Your task to perform on an android device: change your default location settings in chrome Image 0: 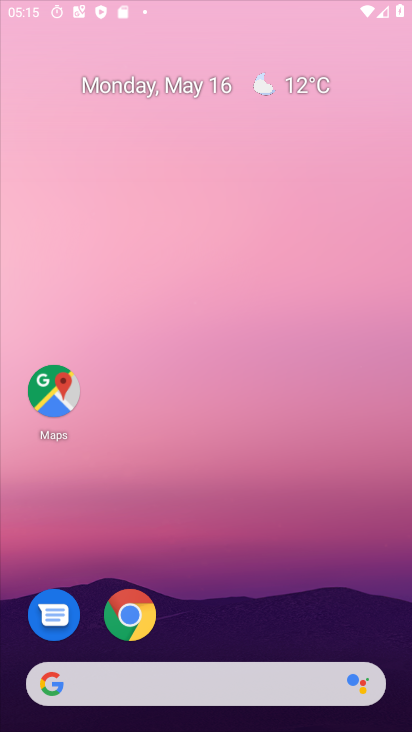
Step 0: drag from (323, 471) to (234, 42)
Your task to perform on an android device: change your default location settings in chrome Image 1: 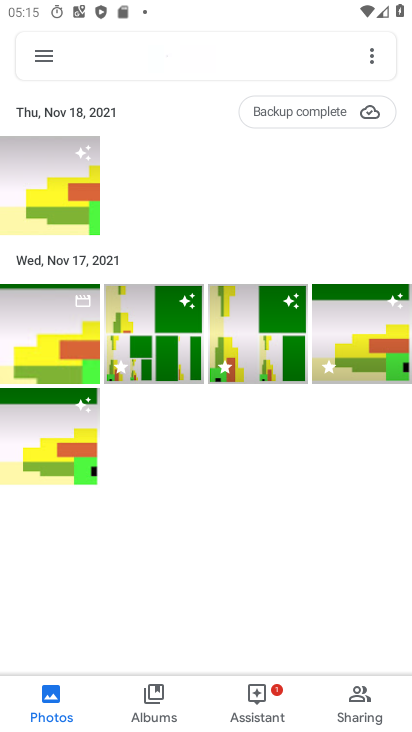
Step 1: press back button
Your task to perform on an android device: change your default location settings in chrome Image 2: 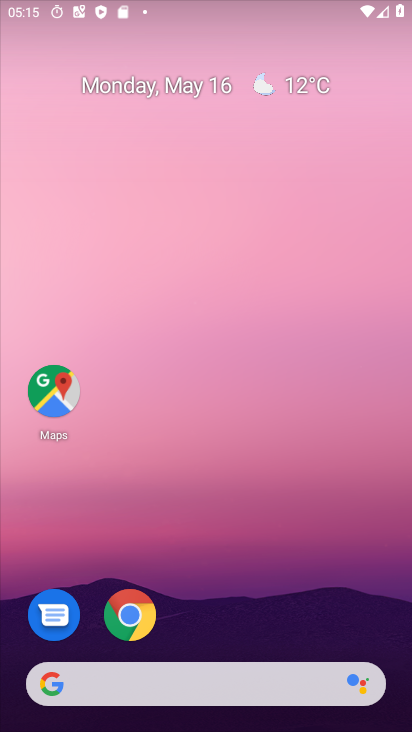
Step 2: drag from (212, 542) to (145, 52)
Your task to perform on an android device: change your default location settings in chrome Image 3: 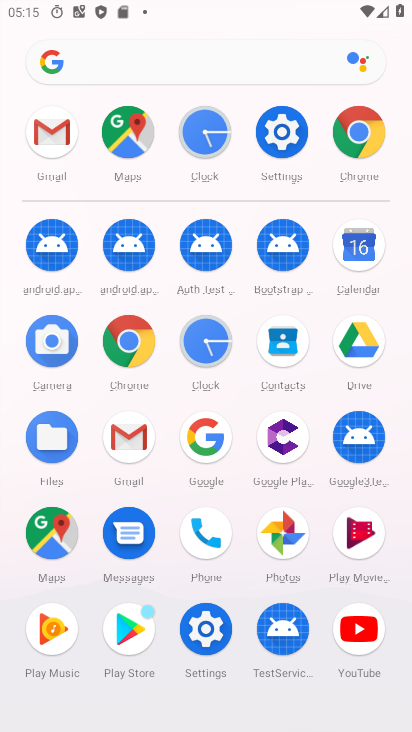
Step 3: drag from (137, 519) to (147, 315)
Your task to perform on an android device: change your default location settings in chrome Image 4: 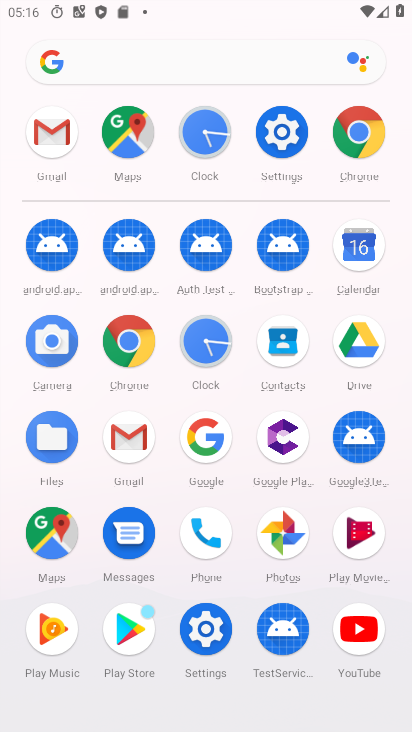
Step 4: click (197, 638)
Your task to perform on an android device: change your default location settings in chrome Image 5: 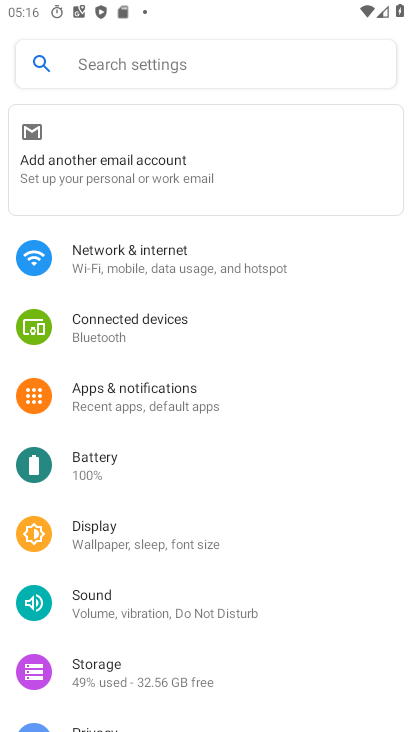
Step 5: drag from (120, 632) to (135, 344)
Your task to perform on an android device: change your default location settings in chrome Image 6: 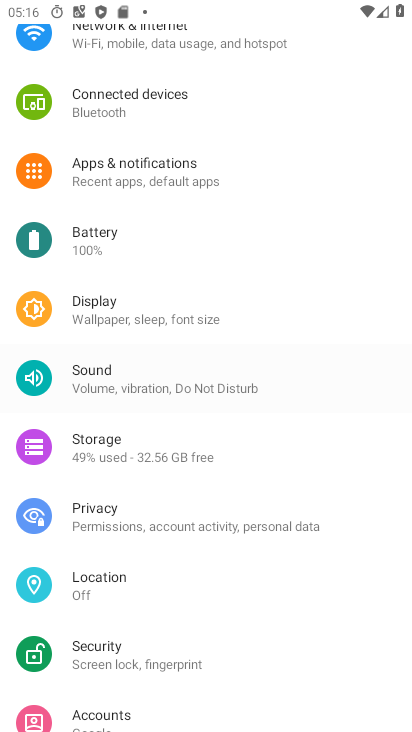
Step 6: drag from (135, 414) to (203, 33)
Your task to perform on an android device: change your default location settings in chrome Image 7: 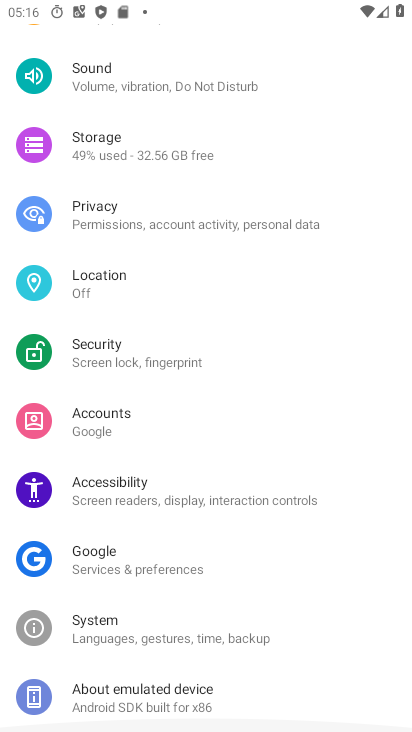
Step 7: drag from (231, 461) to (262, 25)
Your task to perform on an android device: change your default location settings in chrome Image 8: 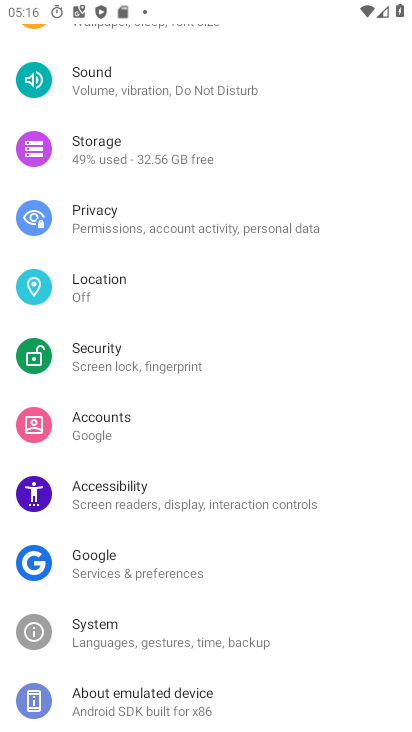
Step 8: click (80, 288)
Your task to perform on an android device: change your default location settings in chrome Image 9: 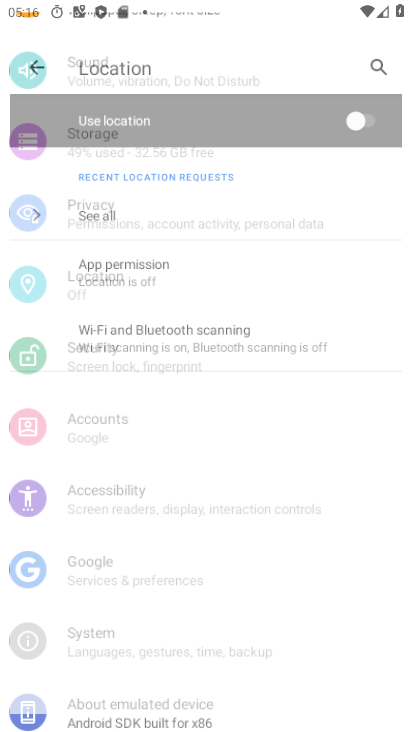
Step 9: click (80, 288)
Your task to perform on an android device: change your default location settings in chrome Image 10: 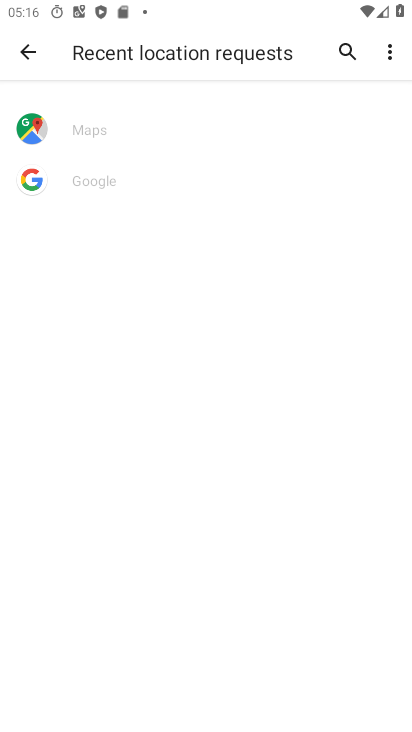
Step 10: click (29, 53)
Your task to perform on an android device: change your default location settings in chrome Image 11: 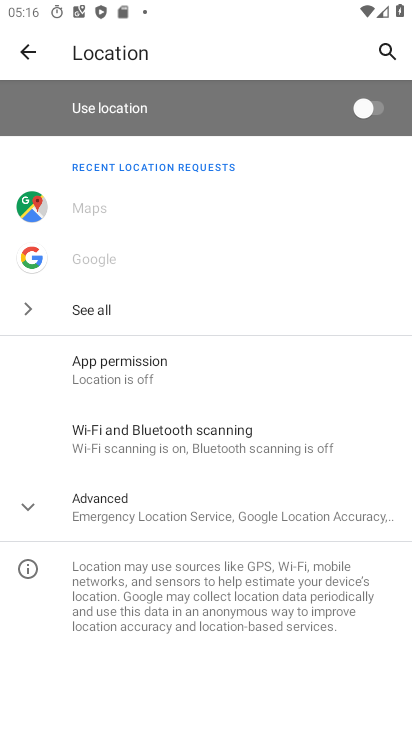
Step 11: click (362, 105)
Your task to perform on an android device: change your default location settings in chrome Image 12: 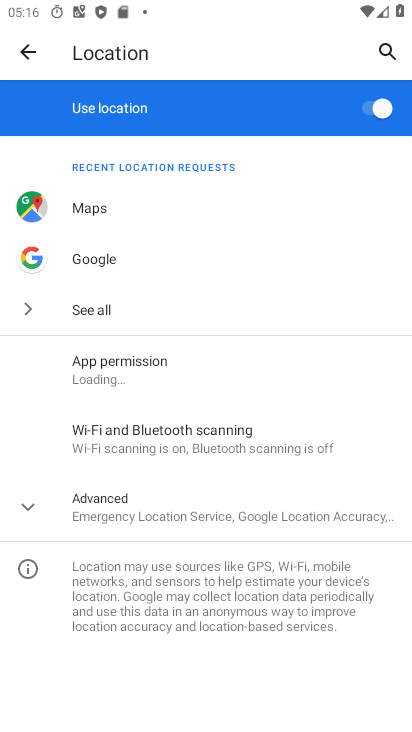
Step 12: task complete